Your task to perform on an android device: open app "Nova Launcher" (install if not already installed) Image 0: 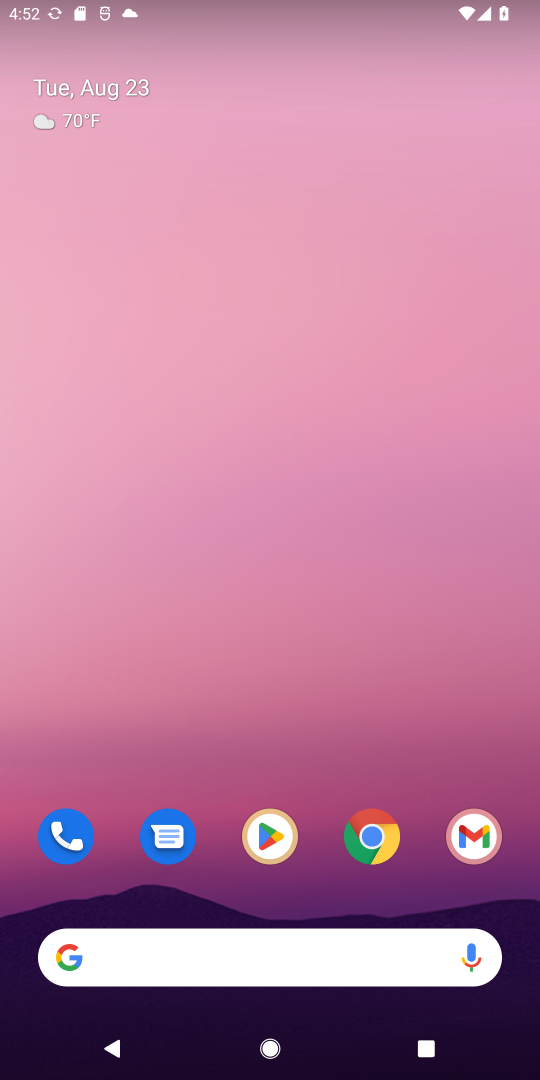
Step 0: click (271, 833)
Your task to perform on an android device: open app "Nova Launcher" (install if not already installed) Image 1: 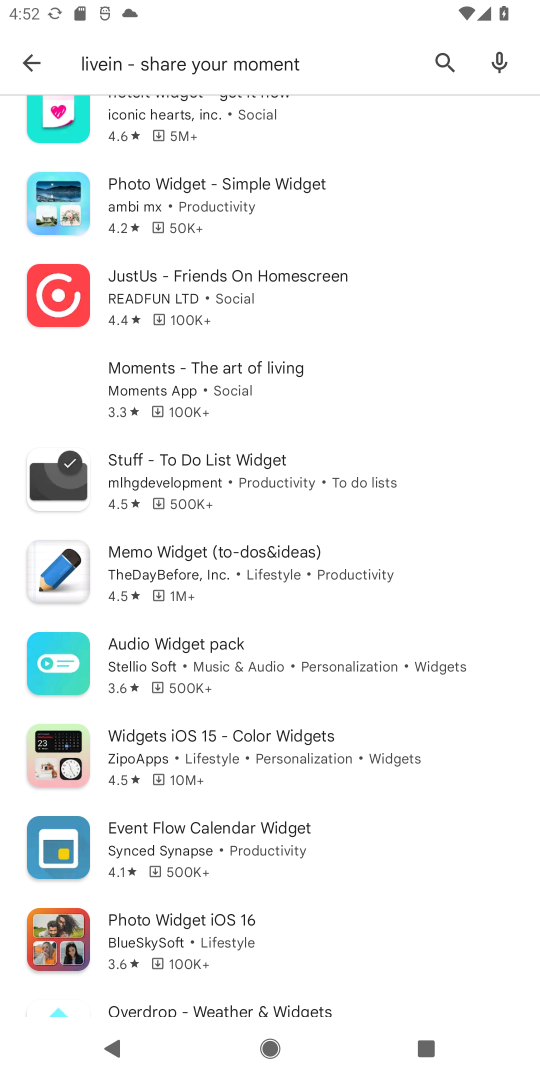
Step 1: click (440, 56)
Your task to perform on an android device: open app "Nova Launcher" (install if not already installed) Image 2: 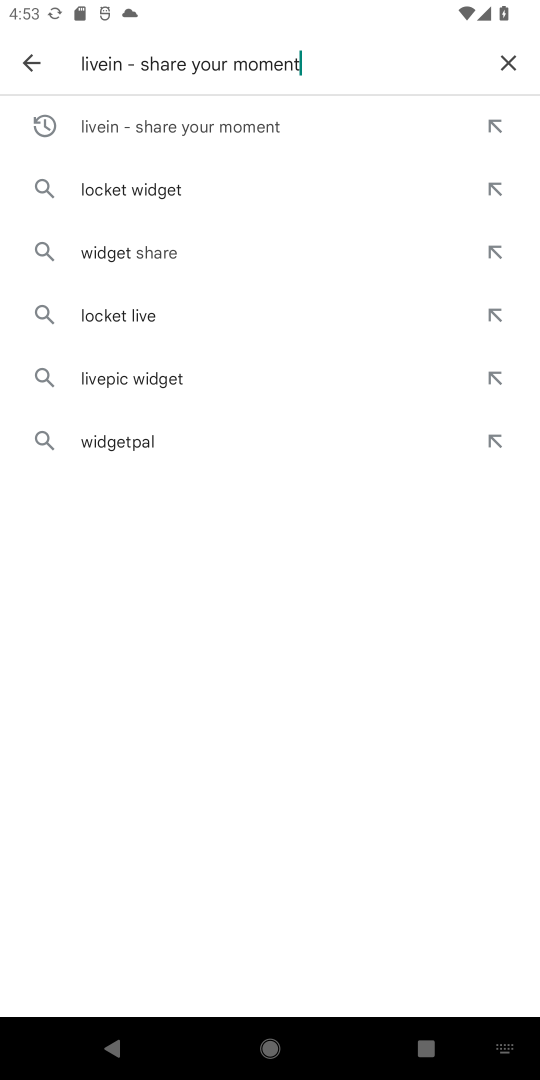
Step 2: click (508, 56)
Your task to perform on an android device: open app "Nova Launcher" (install if not already installed) Image 3: 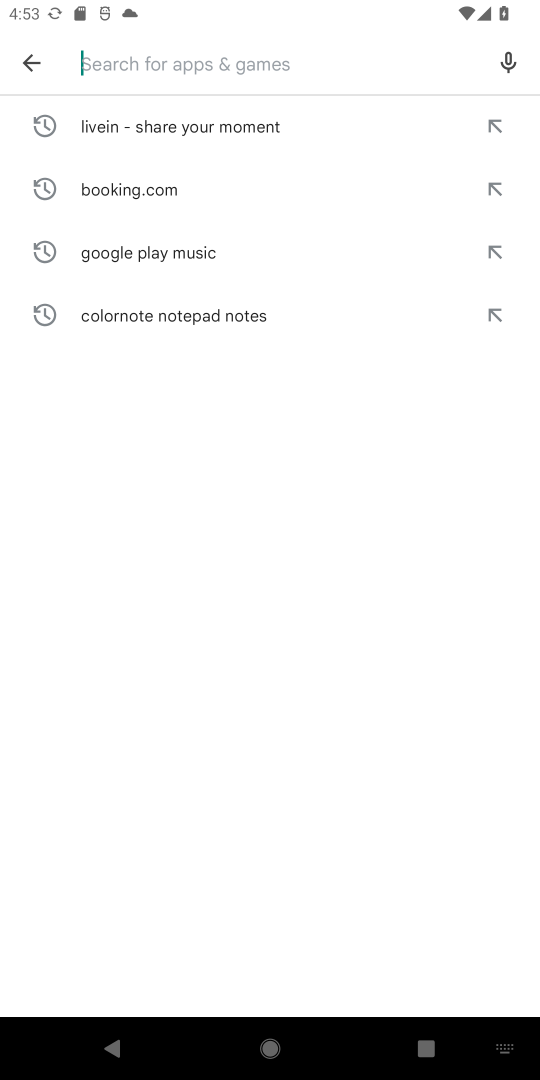
Step 3: type "Nova Launcher"
Your task to perform on an android device: open app "Nova Launcher" (install if not already installed) Image 4: 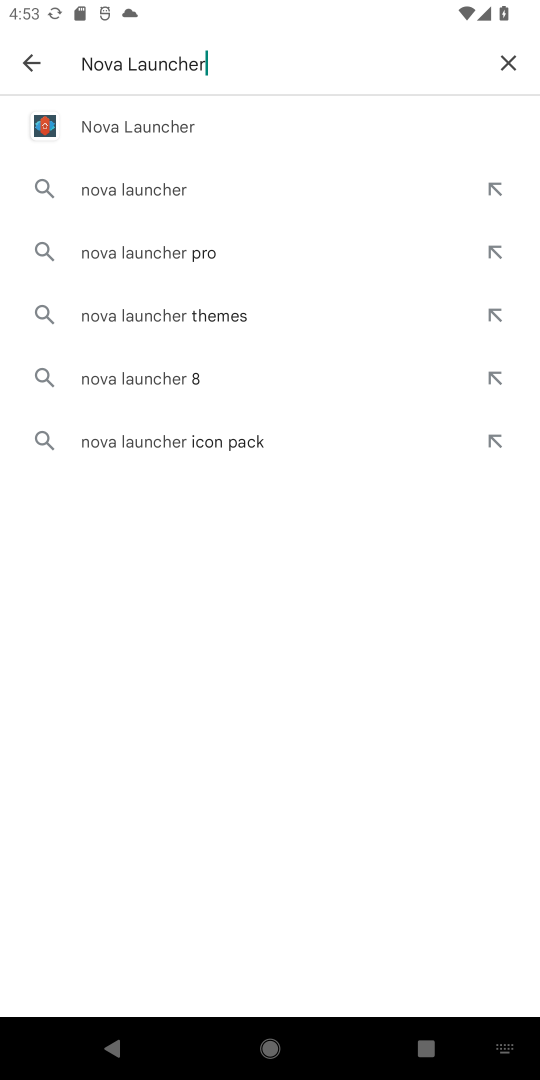
Step 4: click (125, 120)
Your task to perform on an android device: open app "Nova Launcher" (install if not already installed) Image 5: 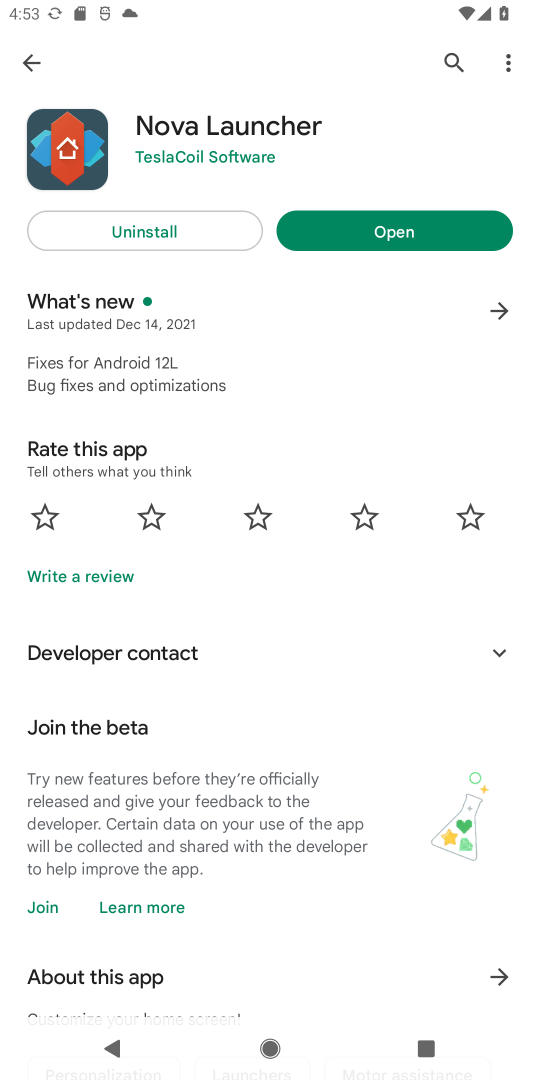
Step 5: click (395, 231)
Your task to perform on an android device: open app "Nova Launcher" (install if not already installed) Image 6: 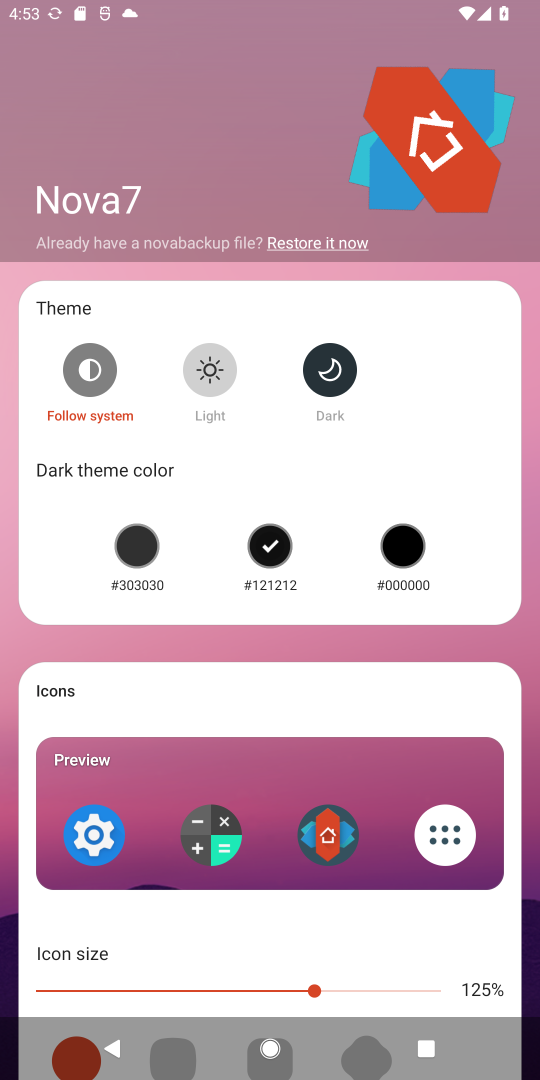
Step 6: task complete